Your task to perform on an android device: toggle wifi Image 0: 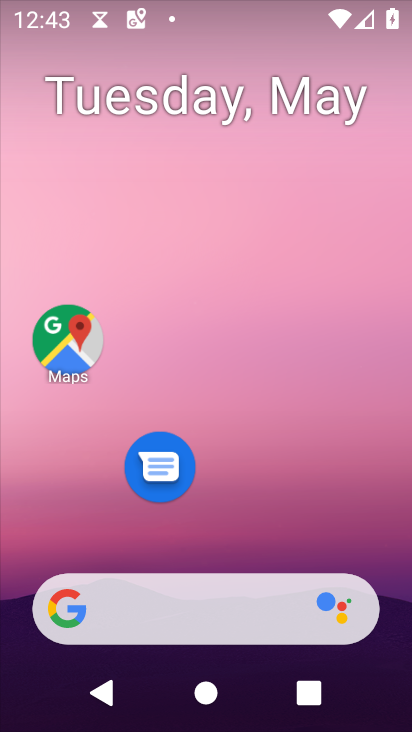
Step 0: drag from (281, 527) to (289, 5)
Your task to perform on an android device: toggle wifi Image 1: 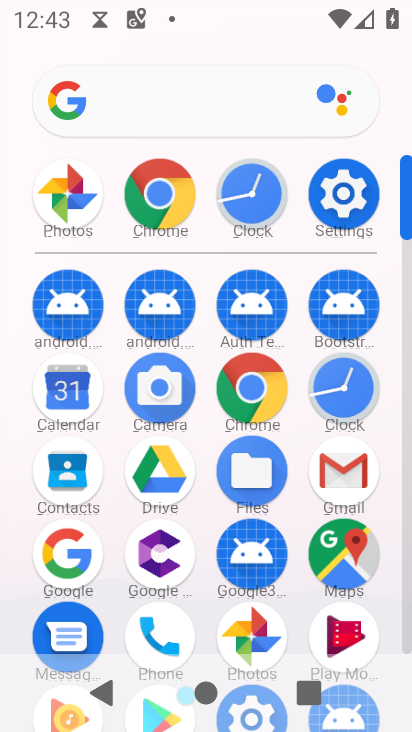
Step 1: click (355, 186)
Your task to perform on an android device: toggle wifi Image 2: 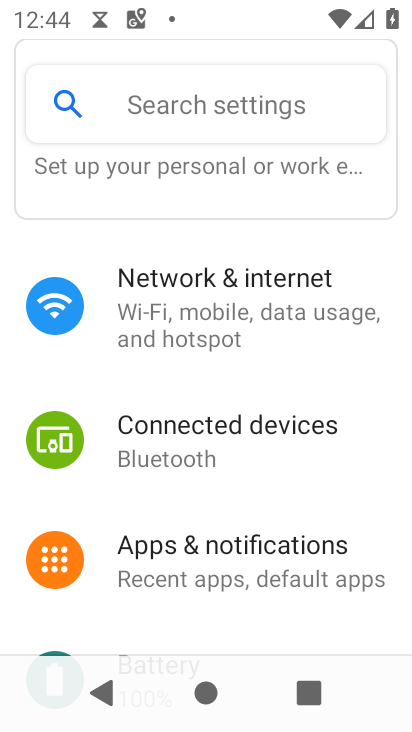
Step 2: click (226, 299)
Your task to perform on an android device: toggle wifi Image 3: 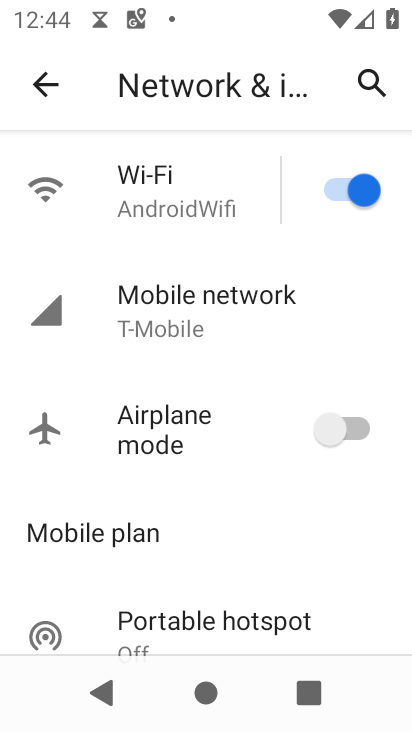
Step 3: click (339, 190)
Your task to perform on an android device: toggle wifi Image 4: 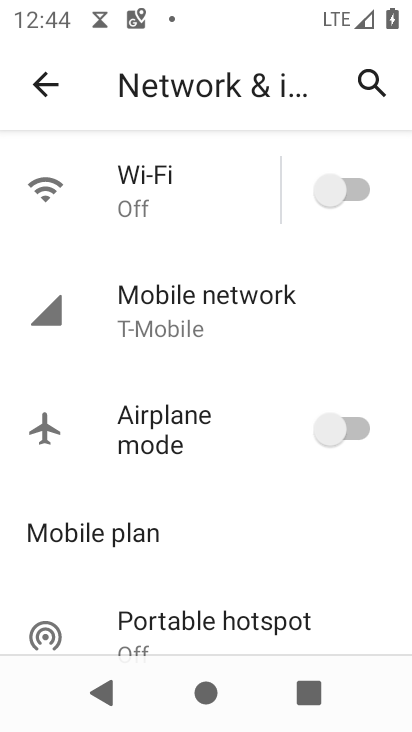
Step 4: task complete